Your task to perform on an android device: Find coffee shops on Maps Image 0: 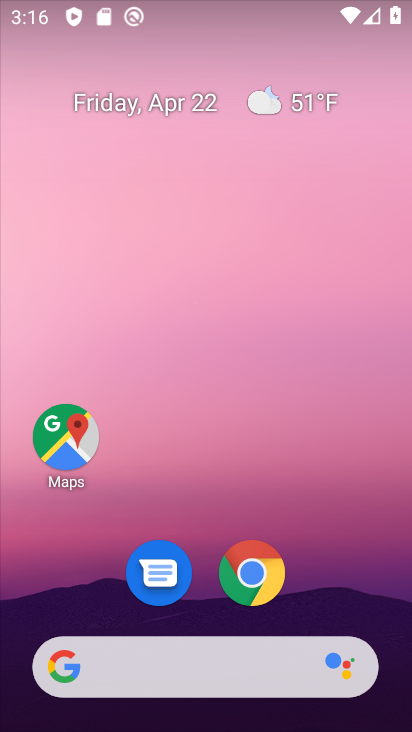
Step 0: click (75, 441)
Your task to perform on an android device: Find coffee shops on Maps Image 1: 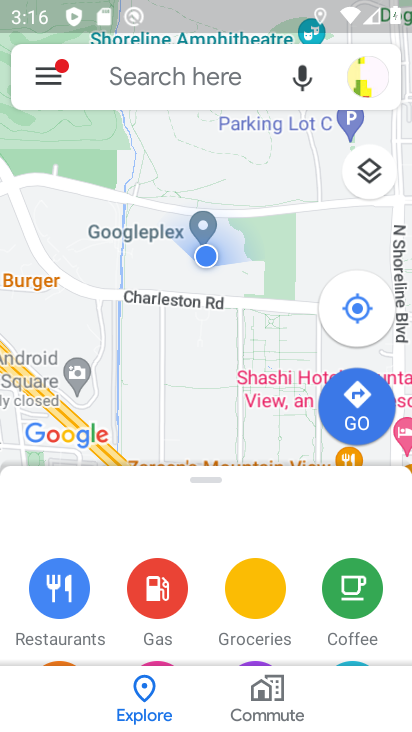
Step 1: click (192, 64)
Your task to perform on an android device: Find coffee shops on Maps Image 2: 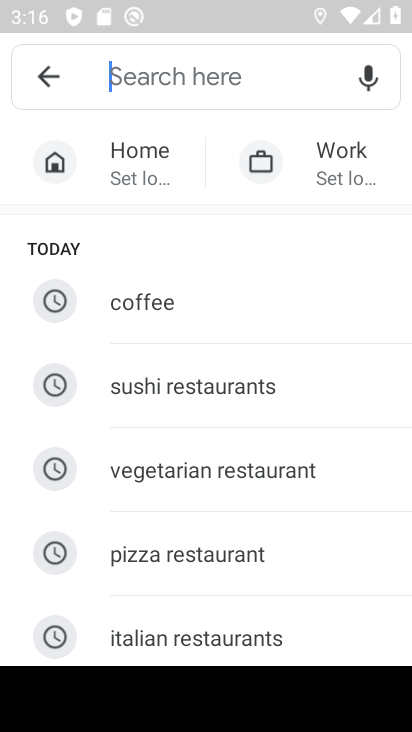
Step 2: type "coffee shops"
Your task to perform on an android device: Find coffee shops on Maps Image 3: 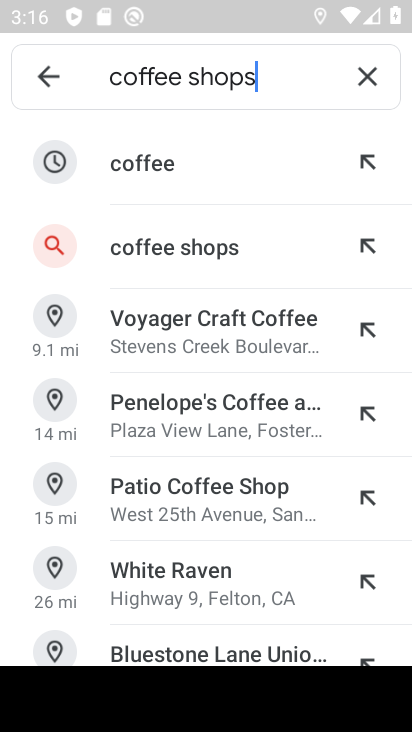
Step 3: task complete